Your task to perform on an android device: toggle airplane mode Image 0: 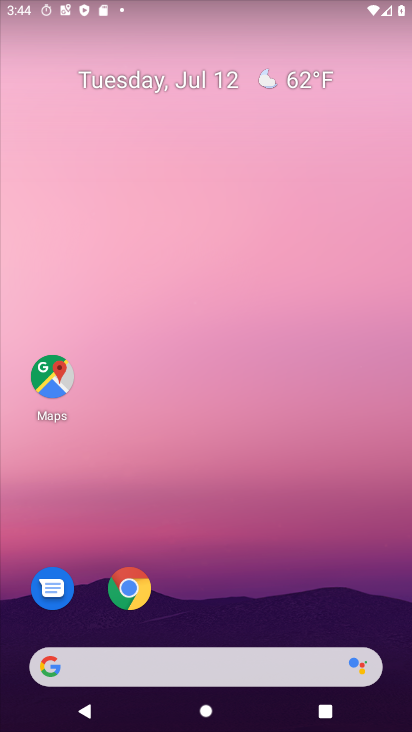
Step 0: drag from (212, 621) to (167, 39)
Your task to perform on an android device: toggle airplane mode Image 1: 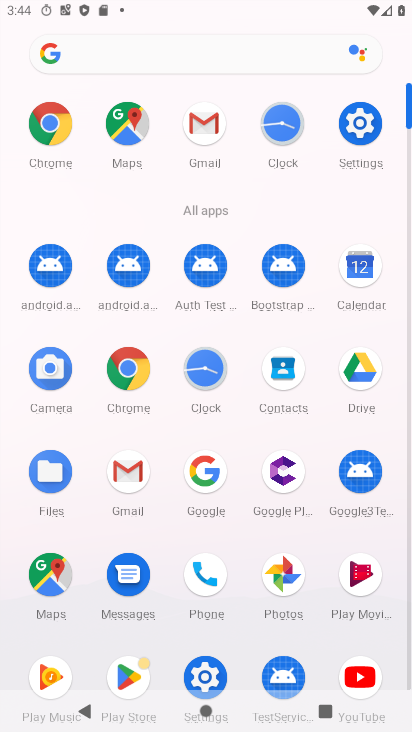
Step 1: click (348, 157)
Your task to perform on an android device: toggle airplane mode Image 2: 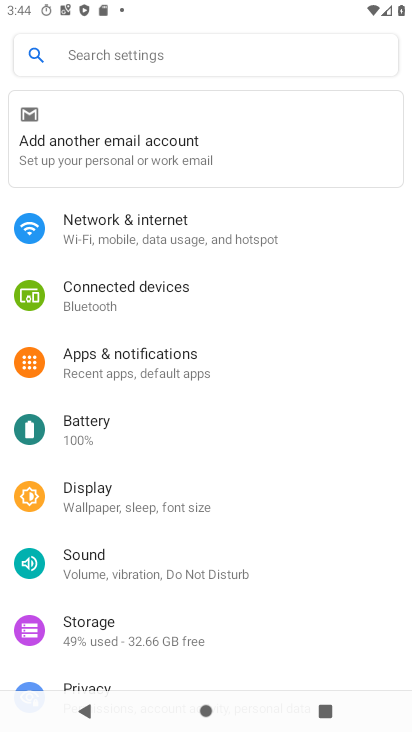
Step 2: click (165, 245)
Your task to perform on an android device: toggle airplane mode Image 3: 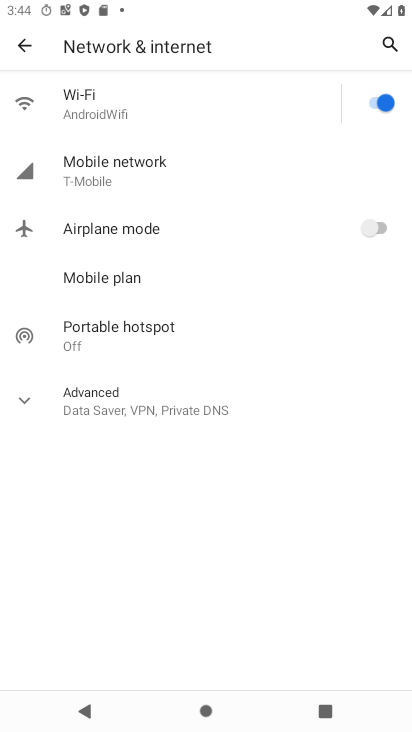
Step 3: click (327, 237)
Your task to perform on an android device: toggle airplane mode Image 4: 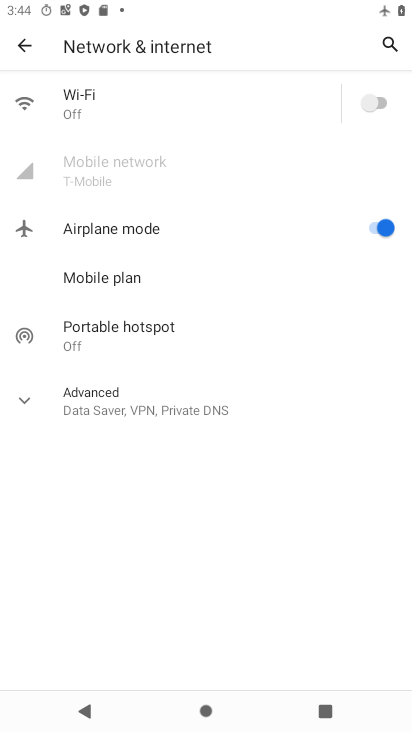
Step 4: task complete